Your task to perform on an android device: turn on the 12-hour format for clock Image 0: 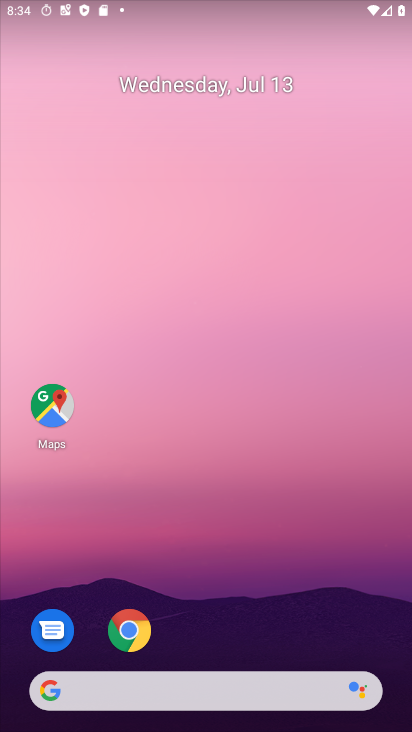
Step 0: drag from (164, 649) to (218, 201)
Your task to perform on an android device: turn on the 12-hour format for clock Image 1: 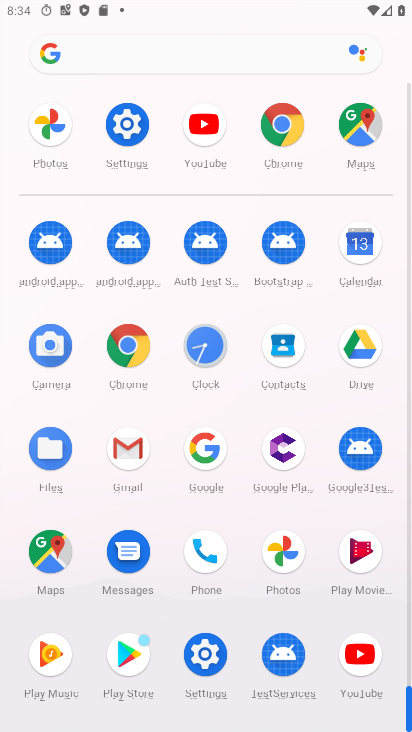
Step 1: click (206, 351)
Your task to perform on an android device: turn on the 12-hour format for clock Image 2: 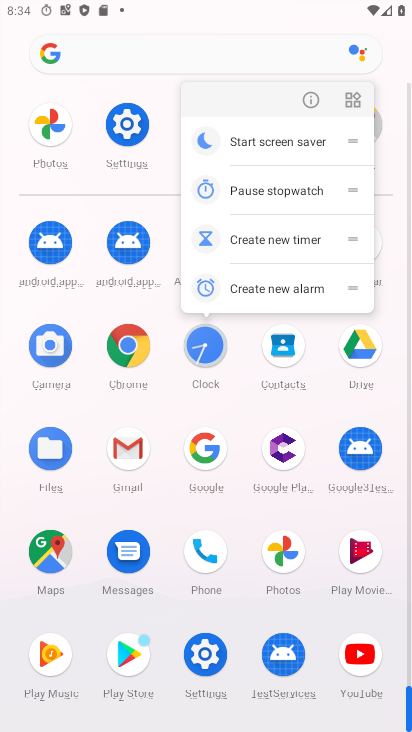
Step 2: click (307, 116)
Your task to perform on an android device: turn on the 12-hour format for clock Image 3: 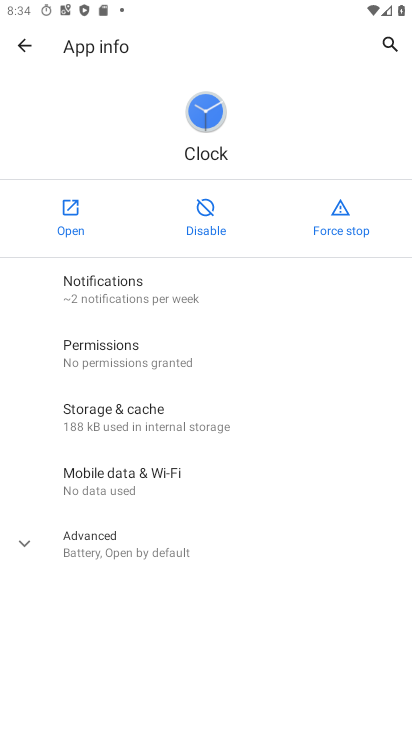
Step 3: click (81, 204)
Your task to perform on an android device: turn on the 12-hour format for clock Image 4: 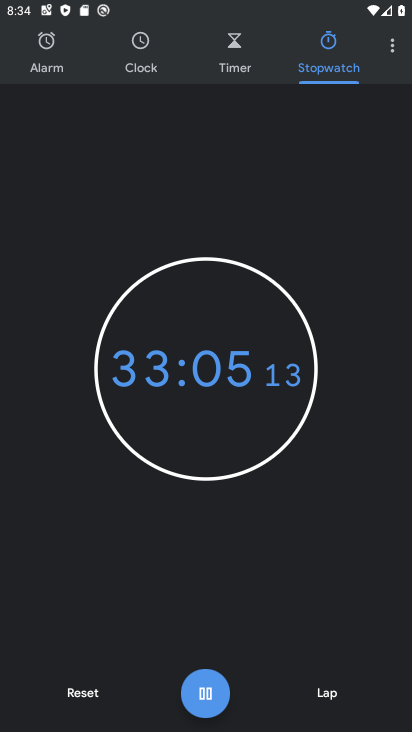
Step 4: click (389, 49)
Your task to perform on an android device: turn on the 12-hour format for clock Image 5: 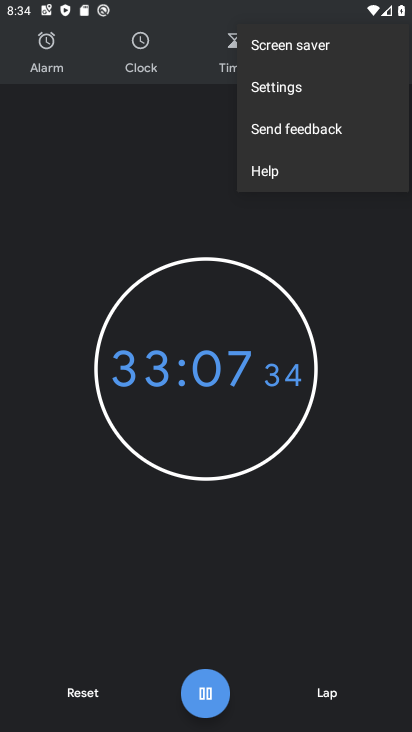
Step 5: click (276, 90)
Your task to perform on an android device: turn on the 12-hour format for clock Image 6: 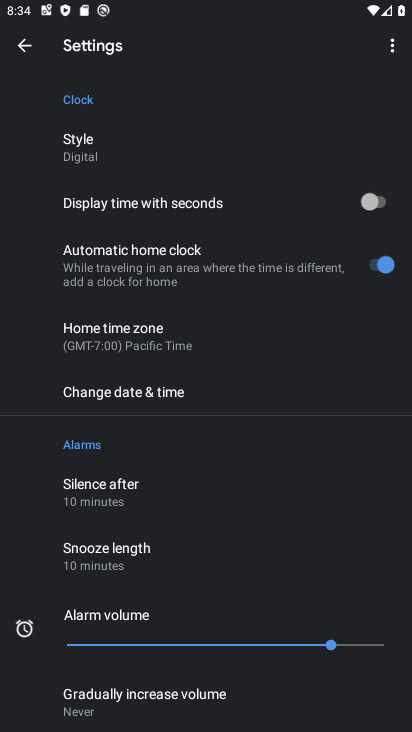
Step 6: click (98, 383)
Your task to perform on an android device: turn on the 12-hour format for clock Image 7: 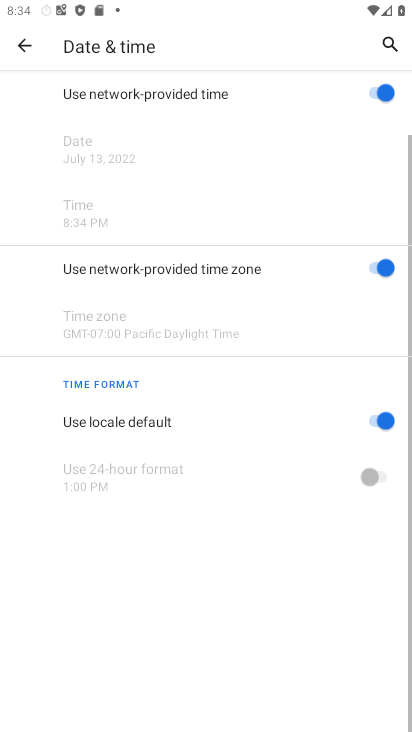
Step 7: task complete